Your task to perform on an android device: open app "Firefox Browser" Image 0: 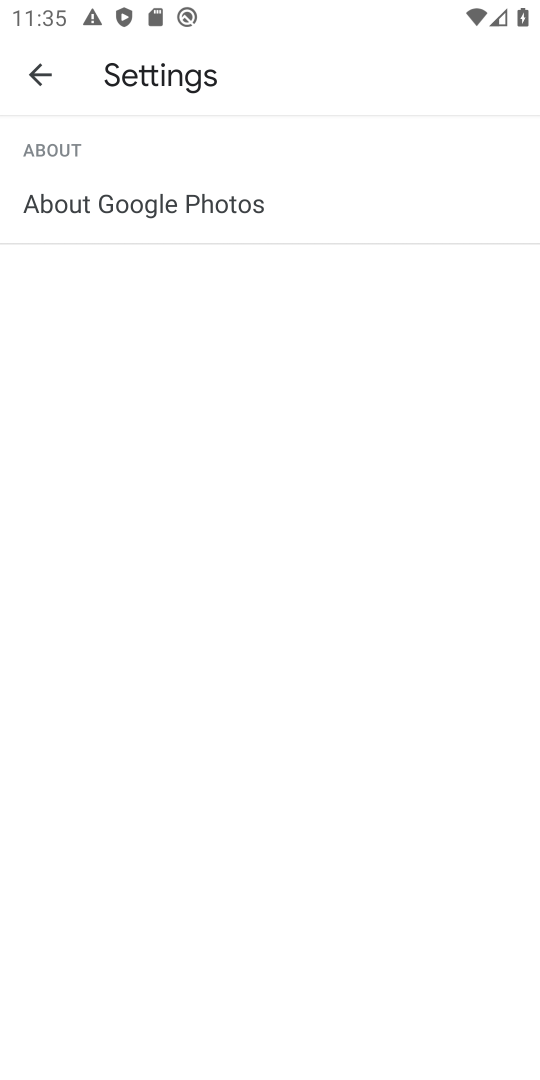
Step 0: press home button
Your task to perform on an android device: open app "Firefox Browser" Image 1: 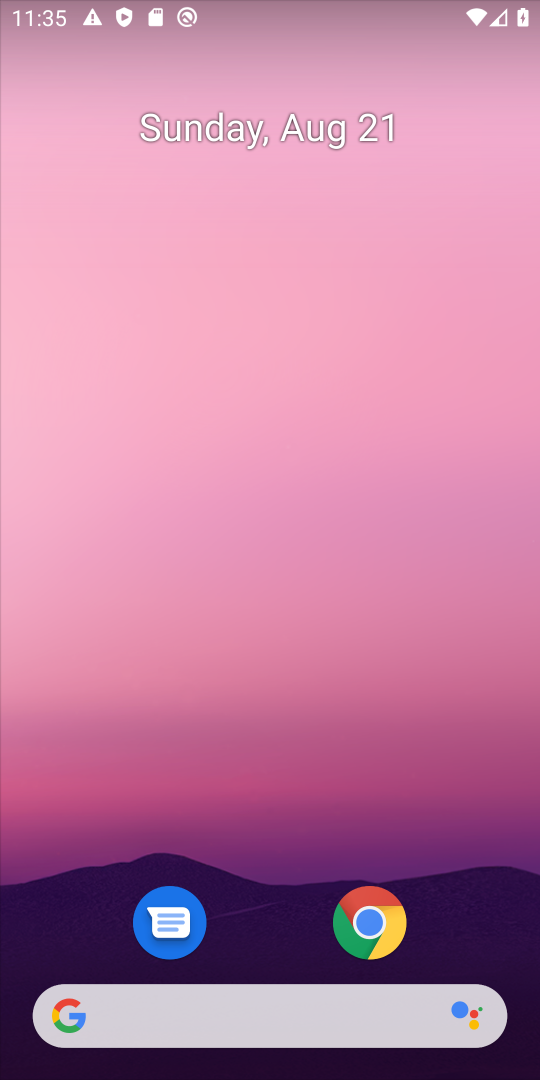
Step 1: drag from (284, 974) to (456, 15)
Your task to perform on an android device: open app "Firefox Browser" Image 2: 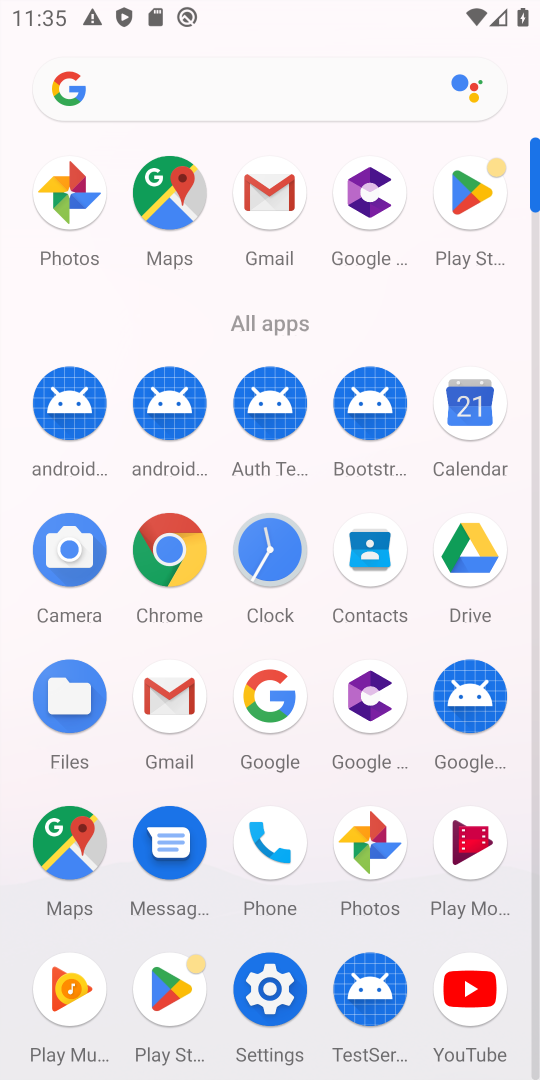
Step 2: click (184, 1017)
Your task to perform on an android device: open app "Firefox Browser" Image 3: 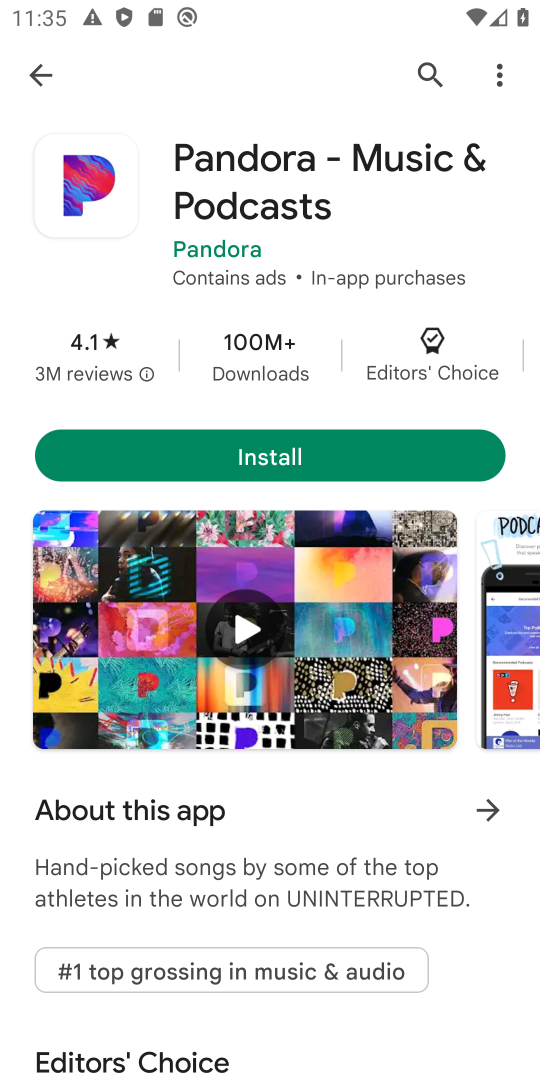
Step 3: click (22, 83)
Your task to perform on an android device: open app "Firefox Browser" Image 4: 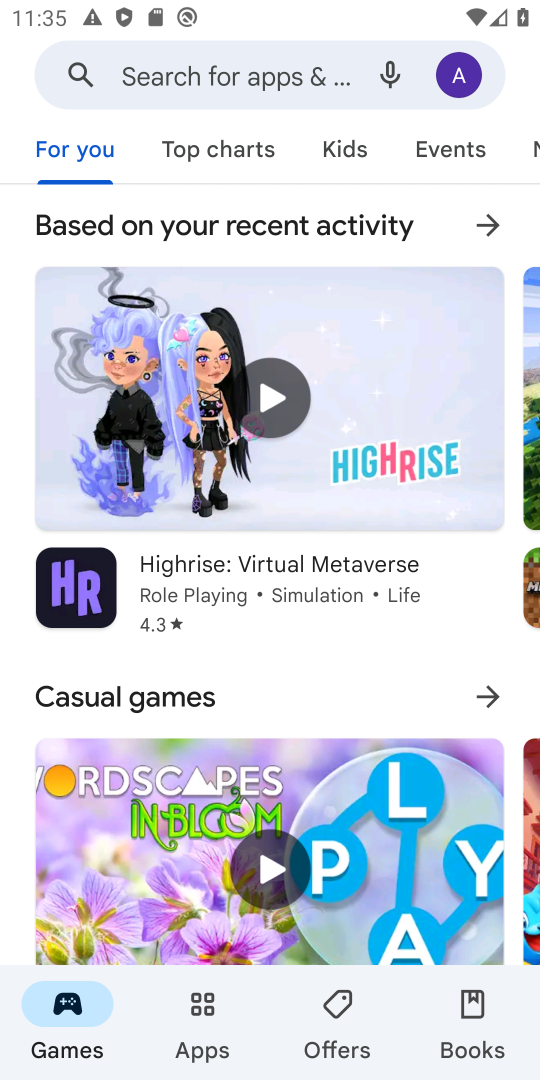
Step 4: click (178, 89)
Your task to perform on an android device: open app "Firefox Browser" Image 5: 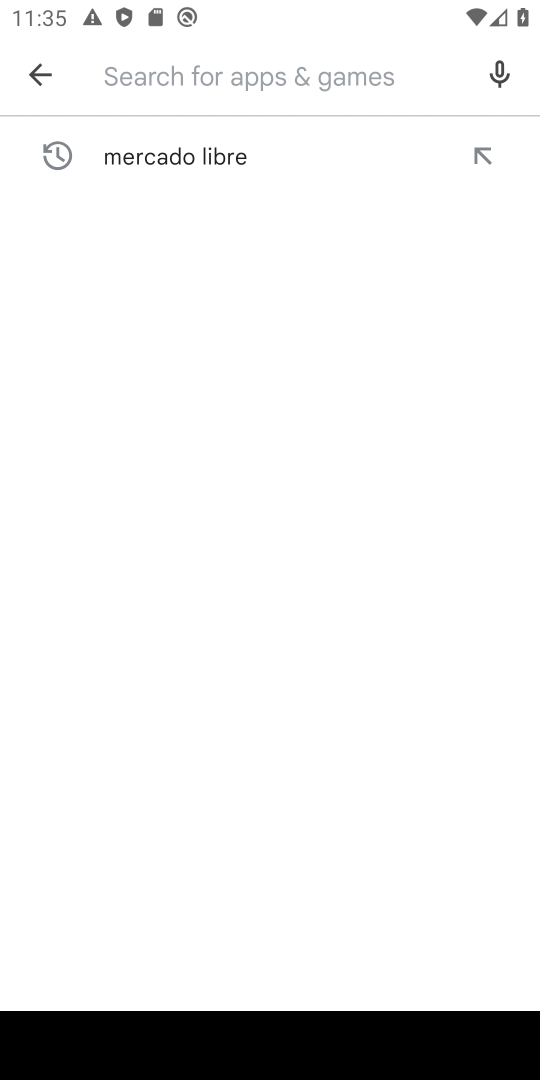
Step 5: type "Firefox Browser"
Your task to perform on an android device: open app "Firefox Browser" Image 6: 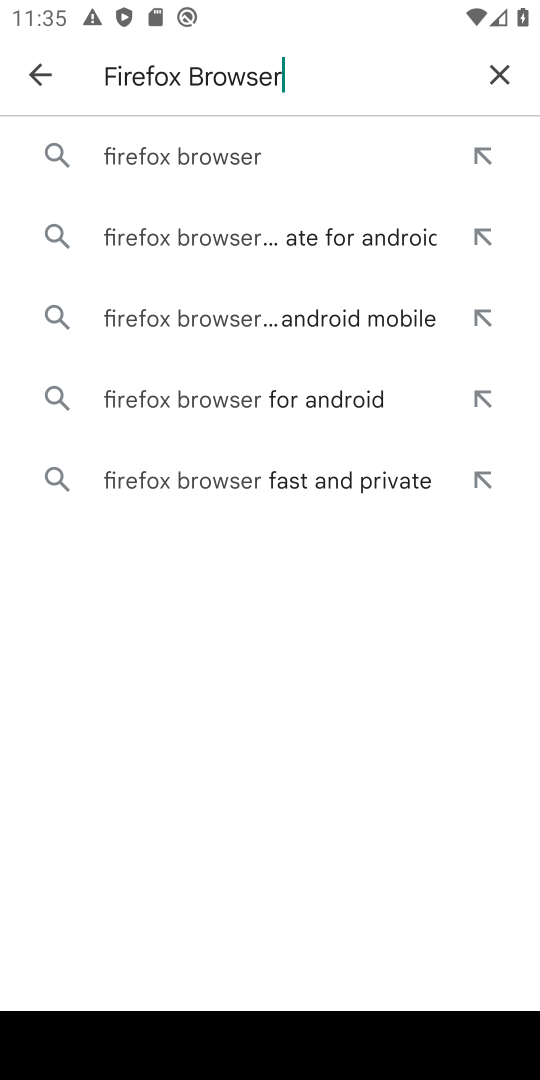
Step 6: click (261, 150)
Your task to perform on an android device: open app "Firefox Browser" Image 7: 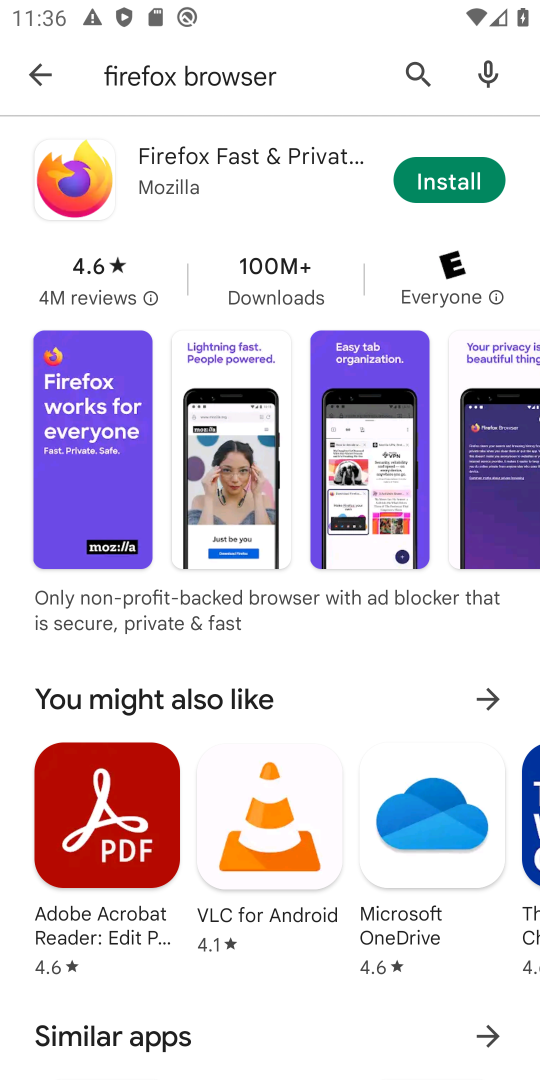
Step 7: task complete